Your task to perform on an android device: choose inbox layout in the gmail app Image 0: 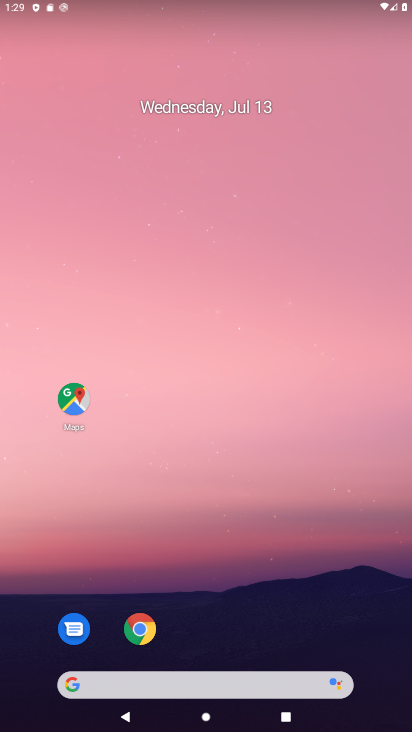
Step 0: drag from (251, 642) to (229, 139)
Your task to perform on an android device: choose inbox layout in the gmail app Image 1: 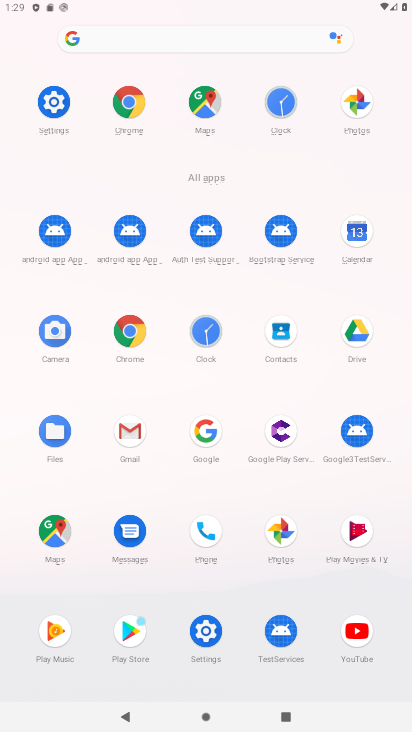
Step 1: click (129, 433)
Your task to perform on an android device: choose inbox layout in the gmail app Image 2: 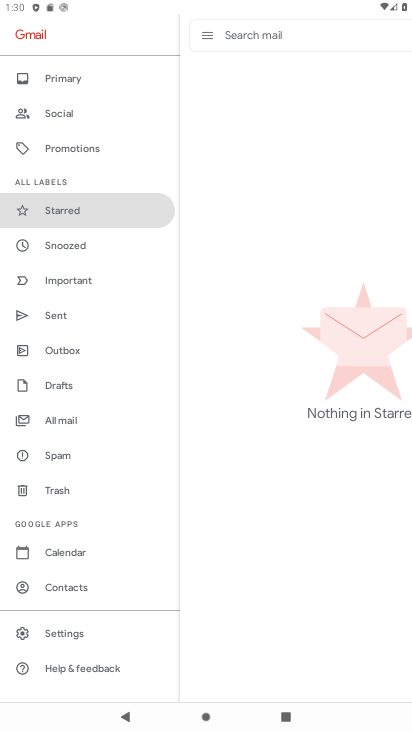
Step 2: click (94, 87)
Your task to perform on an android device: choose inbox layout in the gmail app Image 3: 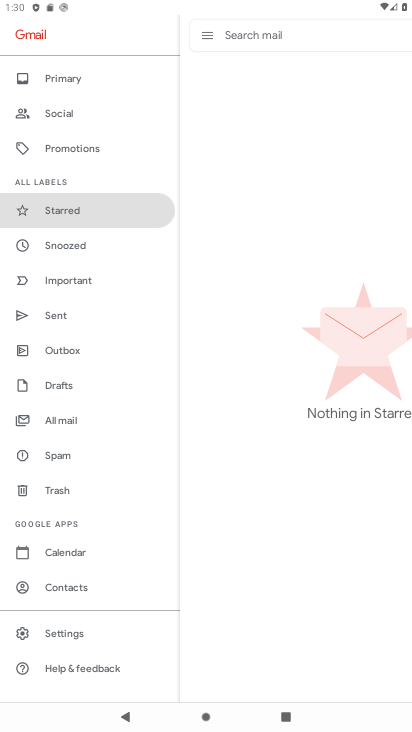
Step 3: task complete